Your task to perform on an android device: uninstall "Google Drive" Image 0: 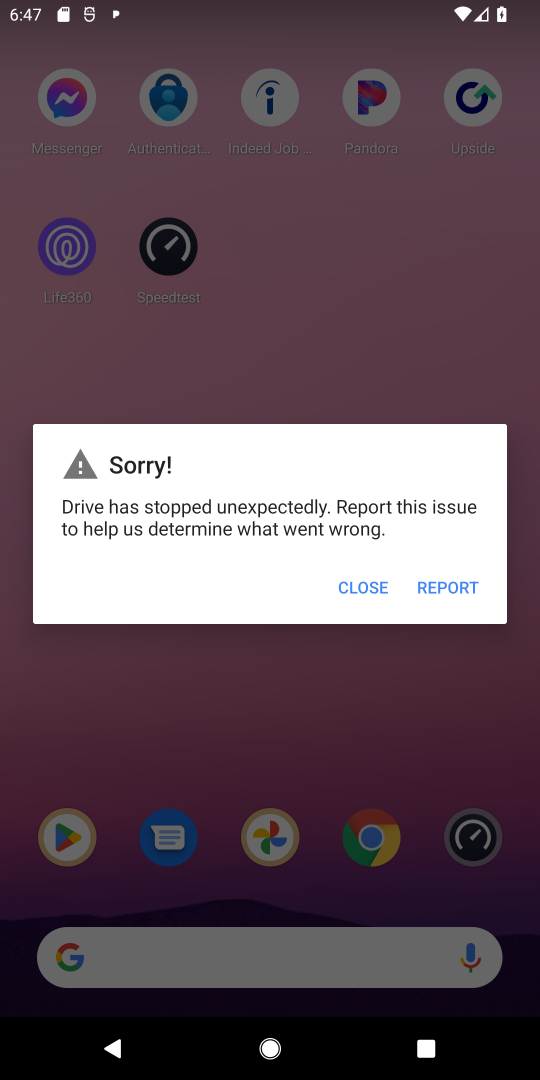
Step 0: press home button
Your task to perform on an android device: uninstall "Google Drive" Image 1: 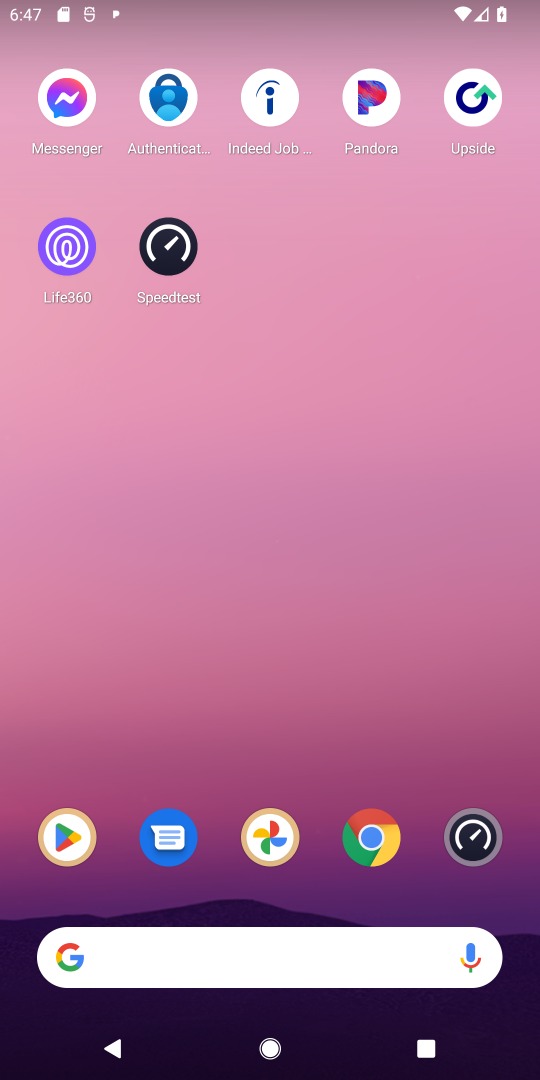
Step 1: click (65, 840)
Your task to perform on an android device: uninstall "Google Drive" Image 2: 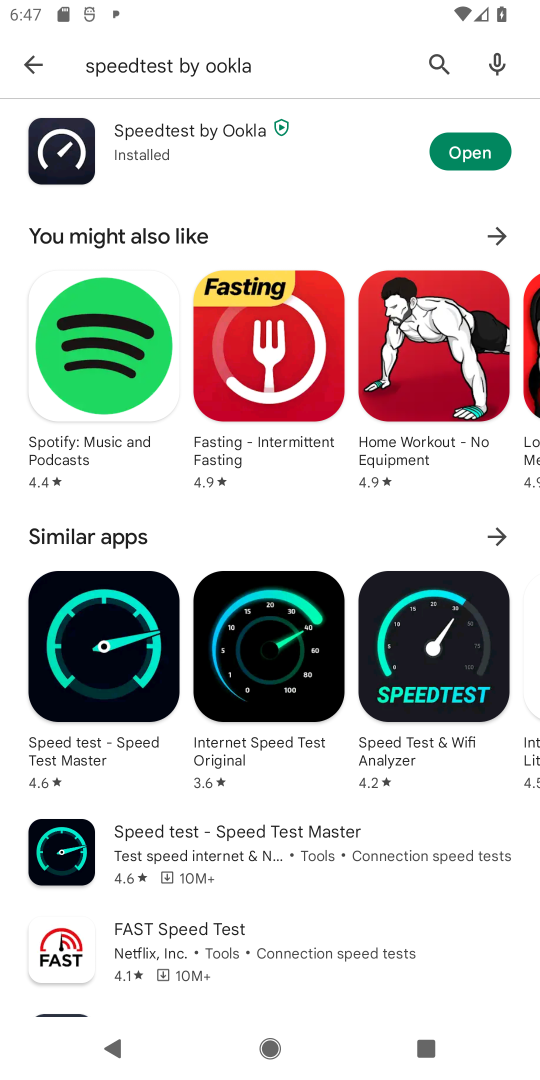
Step 2: click (430, 68)
Your task to perform on an android device: uninstall "Google Drive" Image 3: 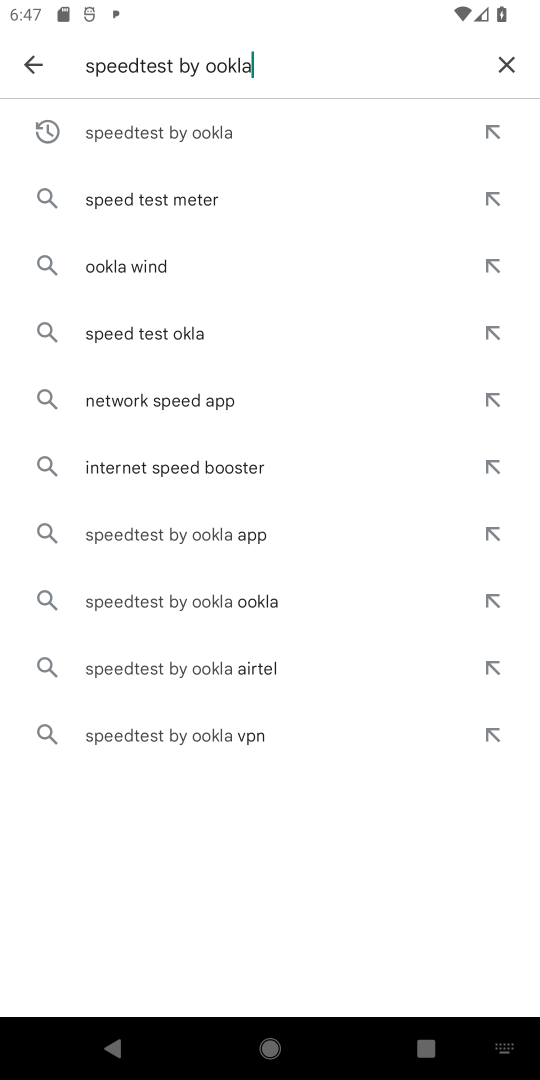
Step 3: click (512, 60)
Your task to perform on an android device: uninstall "Google Drive" Image 4: 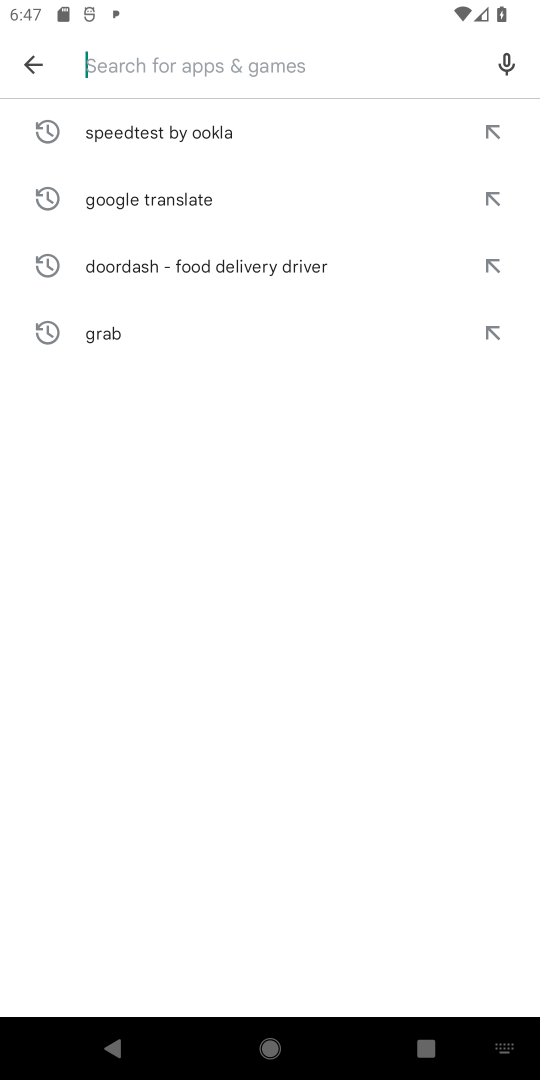
Step 4: type "Google Drive"
Your task to perform on an android device: uninstall "Google Drive" Image 5: 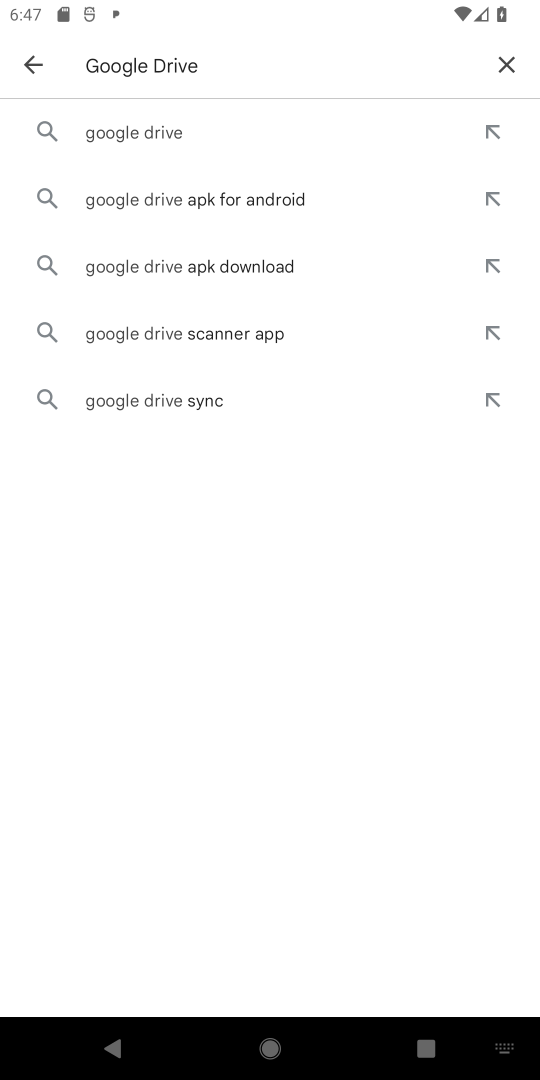
Step 5: click (118, 139)
Your task to perform on an android device: uninstall "Google Drive" Image 6: 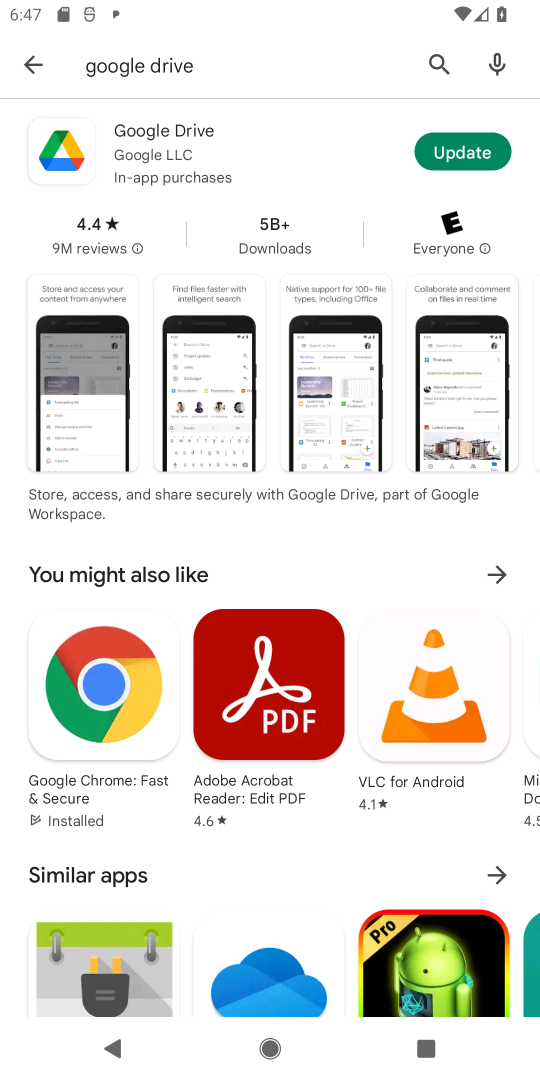
Step 6: click (119, 135)
Your task to perform on an android device: uninstall "Google Drive" Image 7: 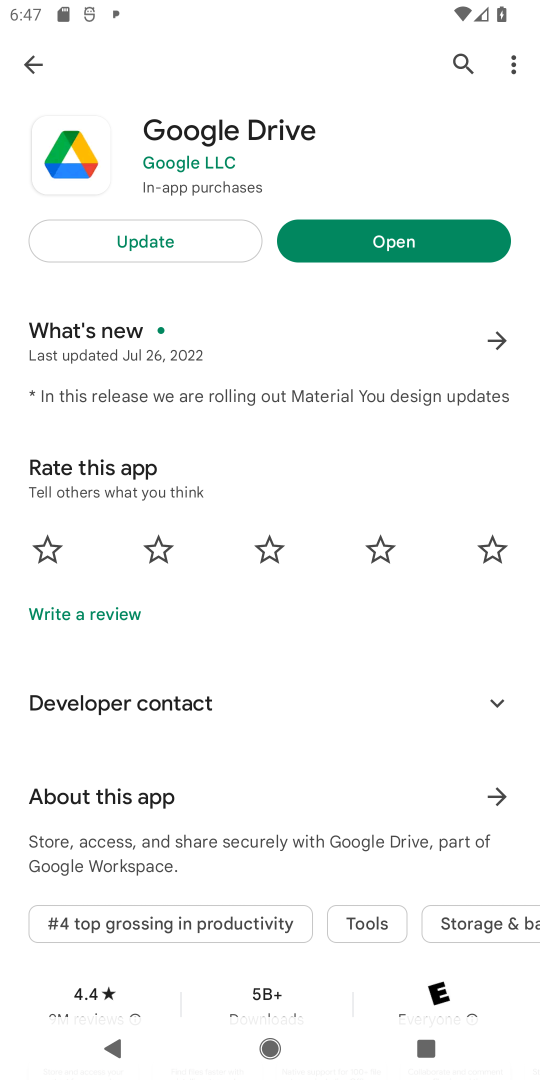
Step 7: click (166, 160)
Your task to perform on an android device: uninstall "Google Drive" Image 8: 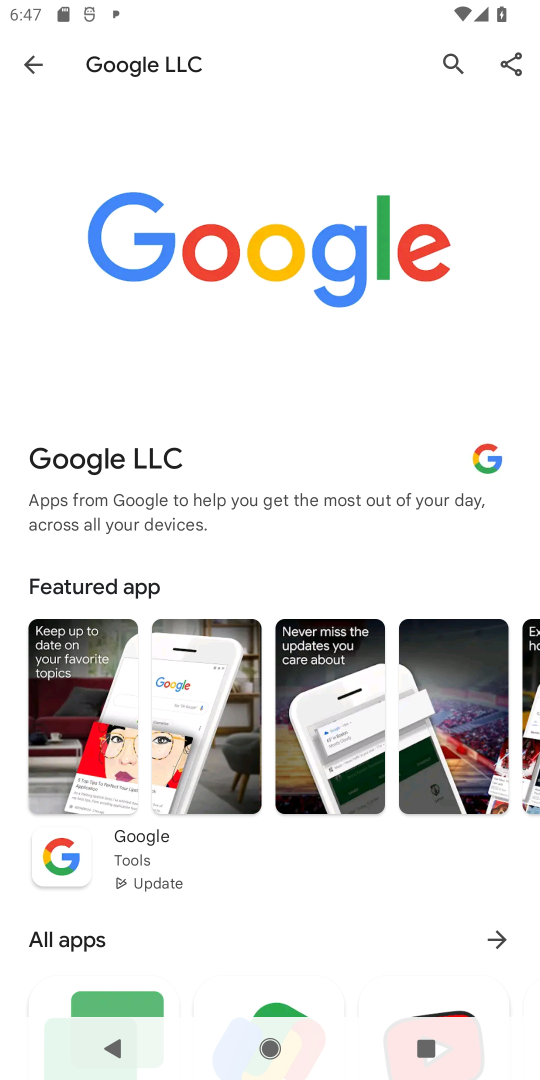
Step 8: task complete